Your task to perform on an android device: Go to calendar. Show me events next week Image 0: 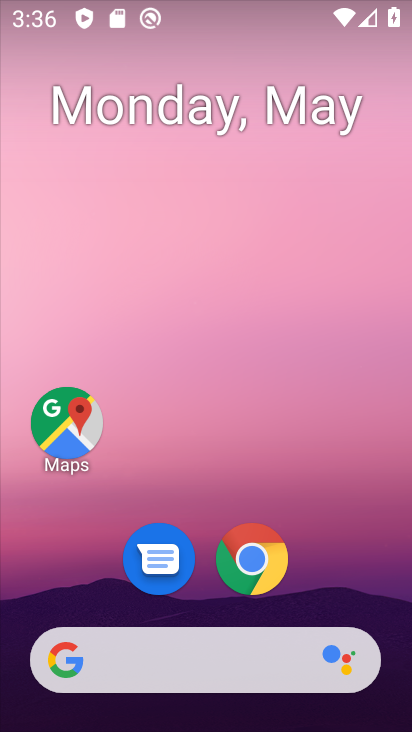
Step 0: click (231, 7)
Your task to perform on an android device: Go to calendar. Show me events next week Image 1: 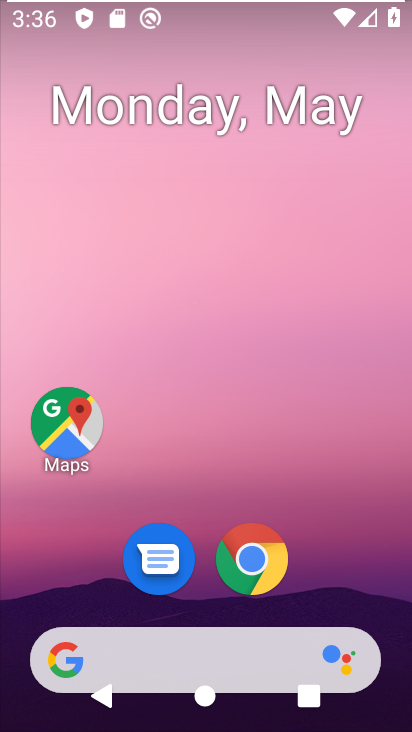
Step 1: drag from (293, 626) to (246, 189)
Your task to perform on an android device: Go to calendar. Show me events next week Image 2: 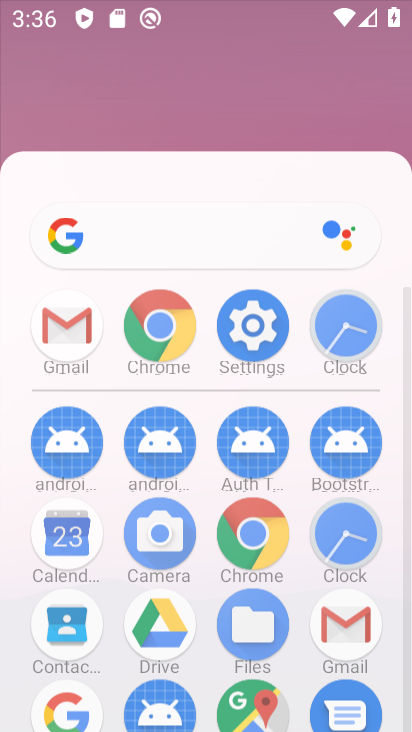
Step 2: drag from (232, 524) to (184, 46)
Your task to perform on an android device: Go to calendar. Show me events next week Image 3: 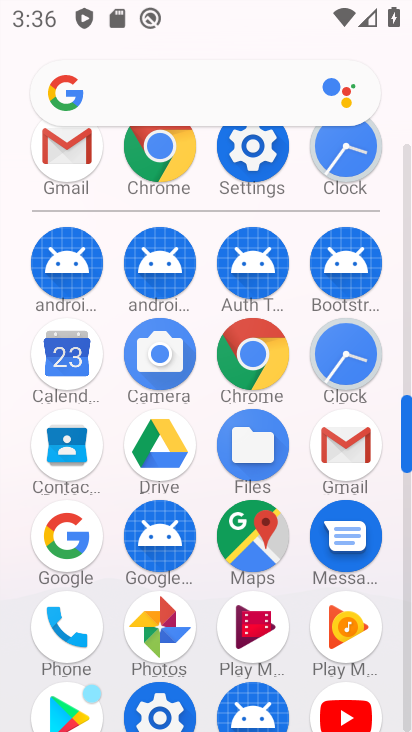
Step 3: click (71, 368)
Your task to perform on an android device: Go to calendar. Show me events next week Image 4: 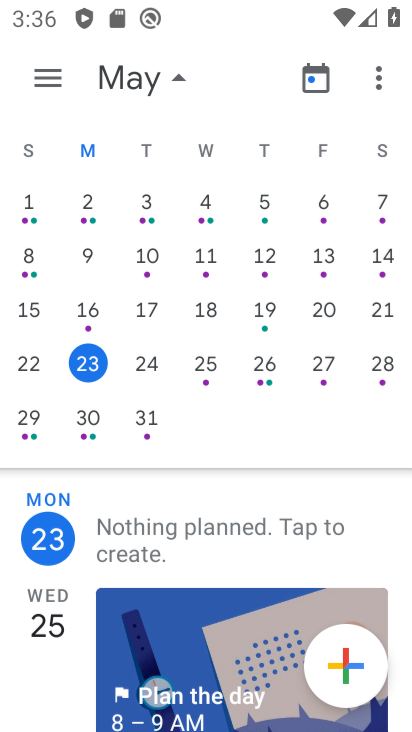
Step 4: click (73, 364)
Your task to perform on an android device: Go to calendar. Show me events next week Image 5: 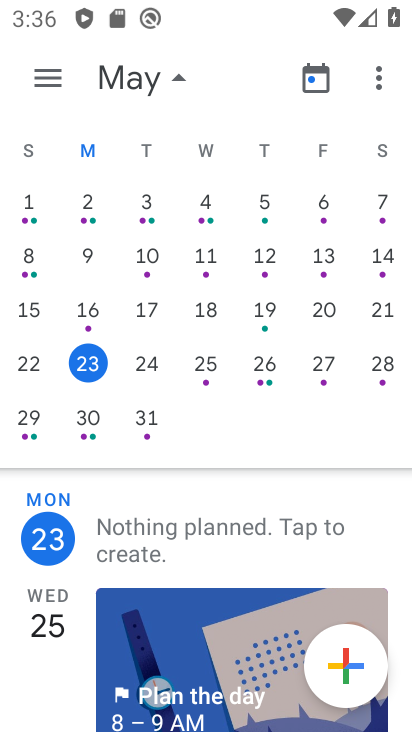
Step 5: drag from (167, 671) to (145, 190)
Your task to perform on an android device: Go to calendar. Show me events next week Image 6: 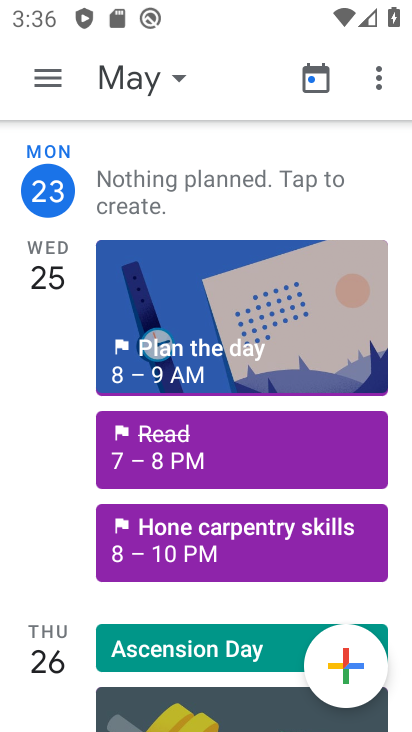
Step 6: drag from (176, 543) to (194, 145)
Your task to perform on an android device: Go to calendar. Show me events next week Image 7: 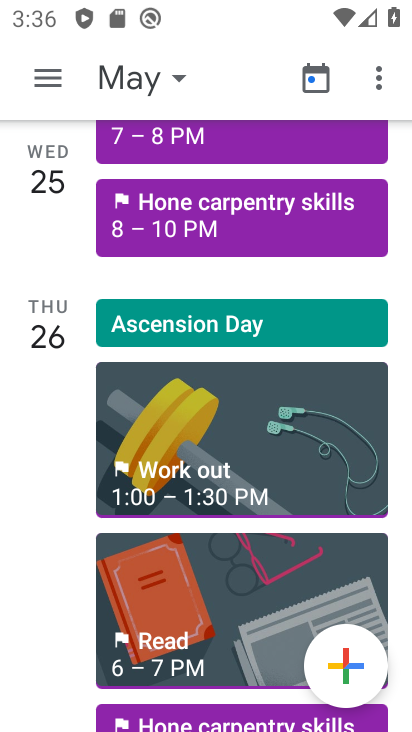
Step 7: drag from (178, 575) to (140, 207)
Your task to perform on an android device: Go to calendar. Show me events next week Image 8: 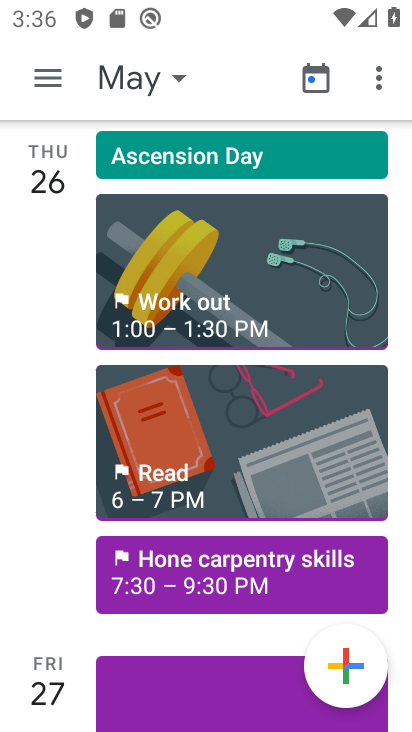
Step 8: drag from (198, 569) to (157, 203)
Your task to perform on an android device: Go to calendar. Show me events next week Image 9: 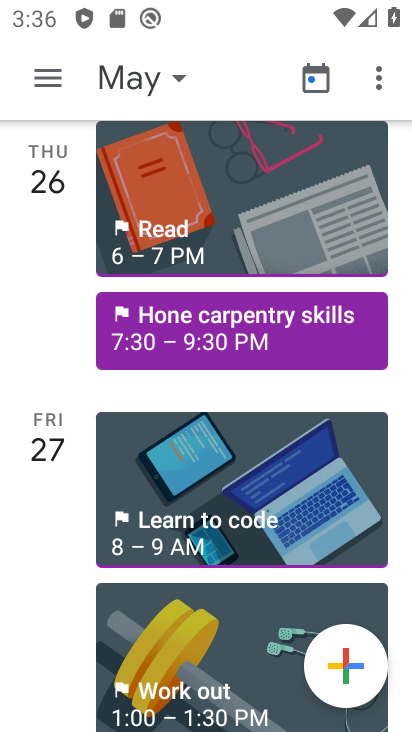
Step 9: drag from (195, 542) to (155, 168)
Your task to perform on an android device: Go to calendar. Show me events next week Image 10: 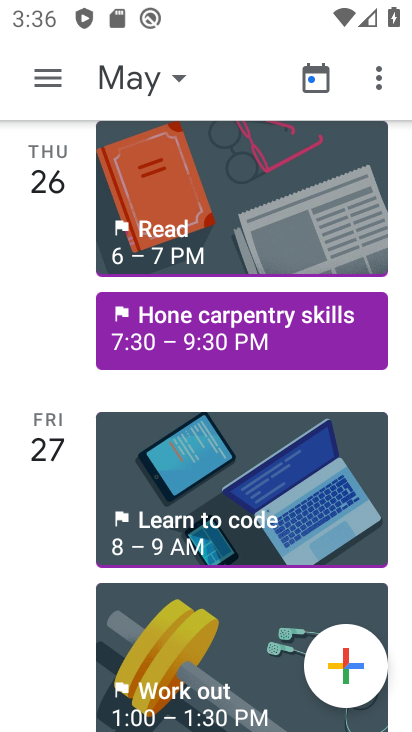
Step 10: drag from (232, 571) to (195, 155)
Your task to perform on an android device: Go to calendar. Show me events next week Image 11: 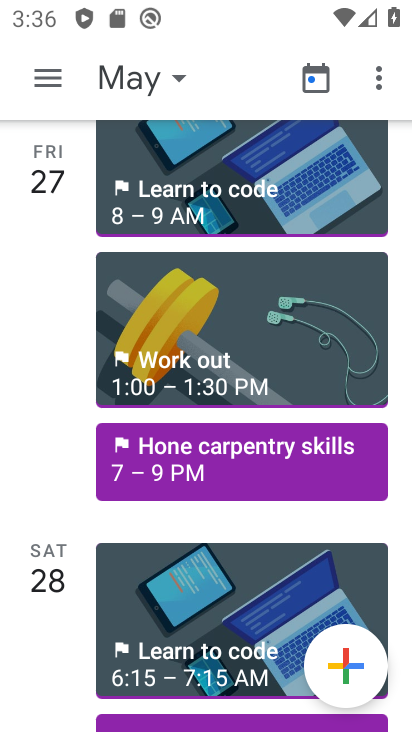
Step 11: drag from (205, 565) to (176, 181)
Your task to perform on an android device: Go to calendar. Show me events next week Image 12: 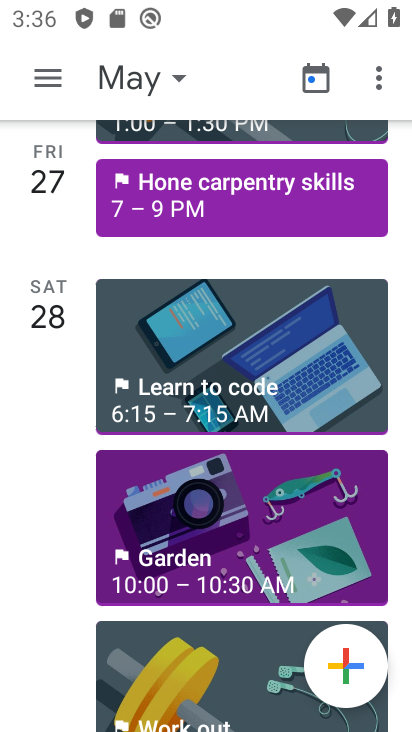
Step 12: drag from (177, 518) to (194, 195)
Your task to perform on an android device: Go to calendar. Show me events next week Image 13: 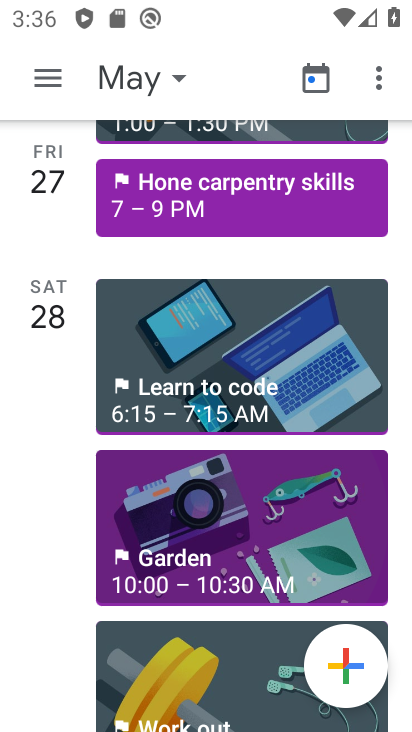
Step 13: drag from (208, 574) to (244, 97)
Your task to perform on an android device: Go to calendar. Show me events next week Image 14: 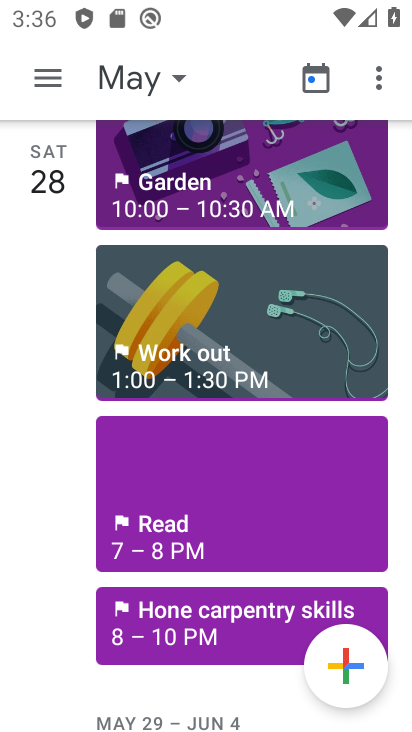
Step 14: drag from (221, 496) to (221, 123)
Your task to perform on an android device: Go to calendar. Show me events next week Image 15: 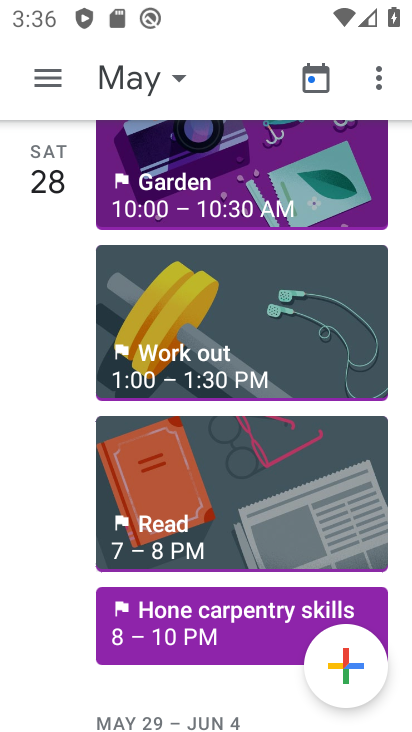
Step 15: drag from (152, 626) to (143, 174)
Your task to perform on an android device: Go to calendar. Show me events next week Image 16: 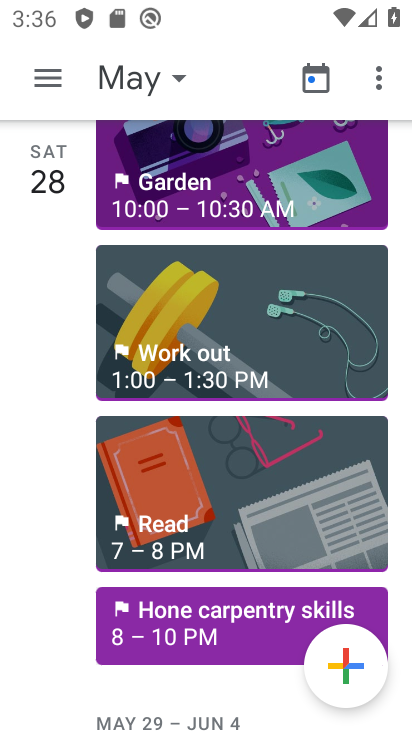
Step 16: drag from (163, 569) to (262, 114)
Your task to perform on an android device: Go to calendar. Show me events next week Image 17: 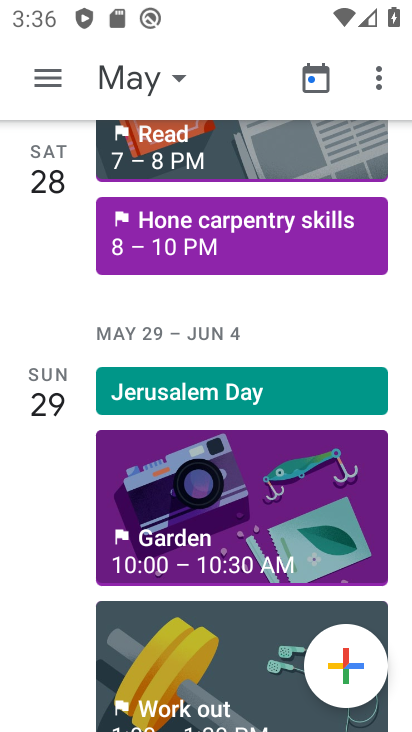
Step 17: drag from (241, 514) to (319, 108)
Your task to perform on an android device: Go to calendar. Show me events next week Image 18: 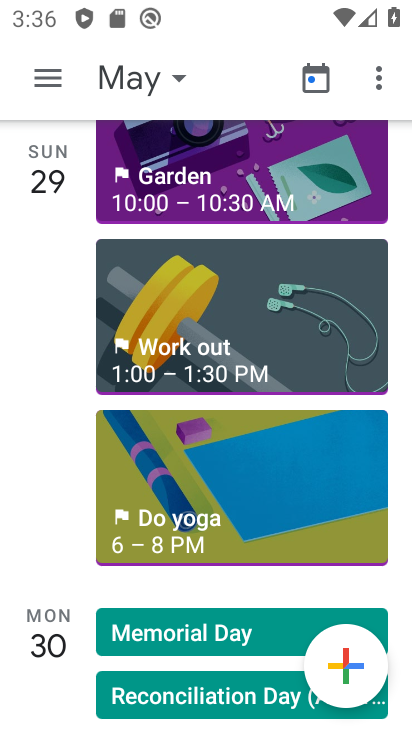
Step 18: click (136, 627)
Your task to perform on an android device: Go to calendar. Show me events next week Image 19: 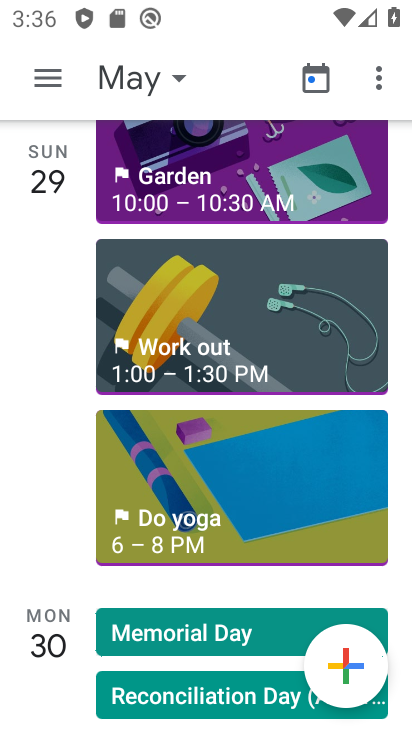
Step 19: click (140, 624)
Your task to perform on an android device: Go to calendar. Show me events next week Image 20: 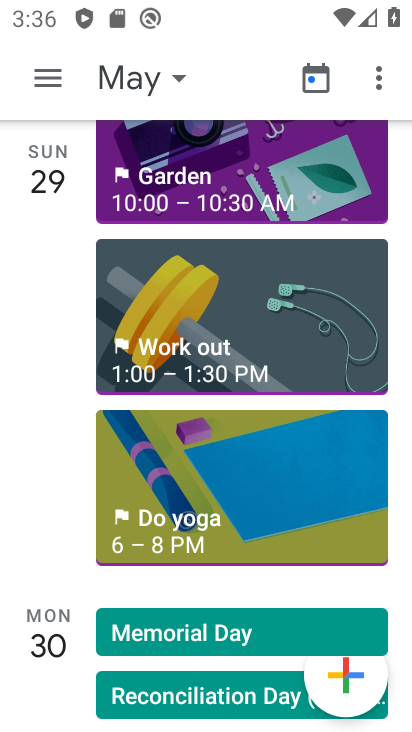
Step 20: click (140, 624)
Your task to perform on an android device: Go to calendar. Show me events next week Image 21: 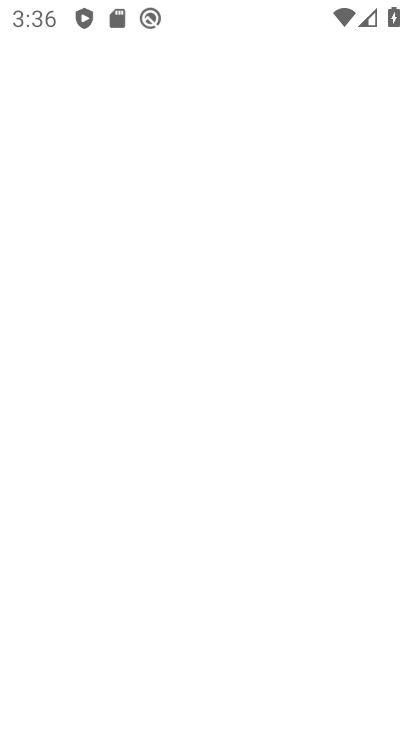
Step 21: click (148, 629)
Your task to perform on an android device: Go to calendar. Show me events next week Image 22: 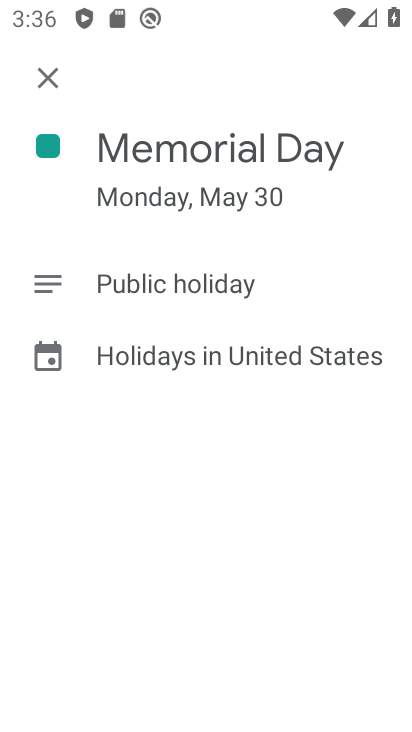
Step 22: click (155, 647)
Your task to perform on an android device: Go to calendar. Show me events next week Image 23: 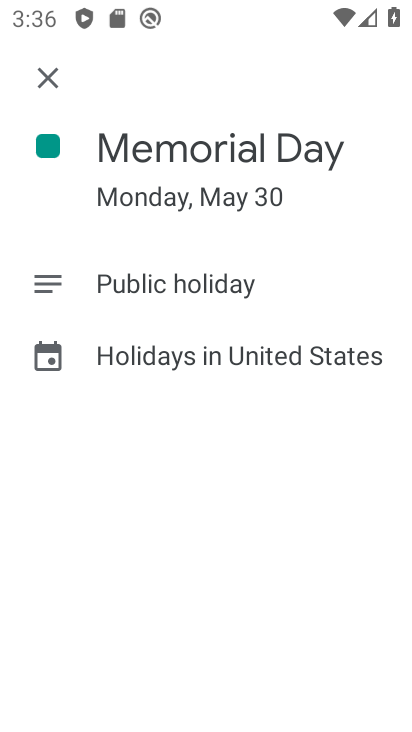
Step 23: click (159, 644)
Your task to perform on an android device: Go to calendar. Show me events next week Image 24: 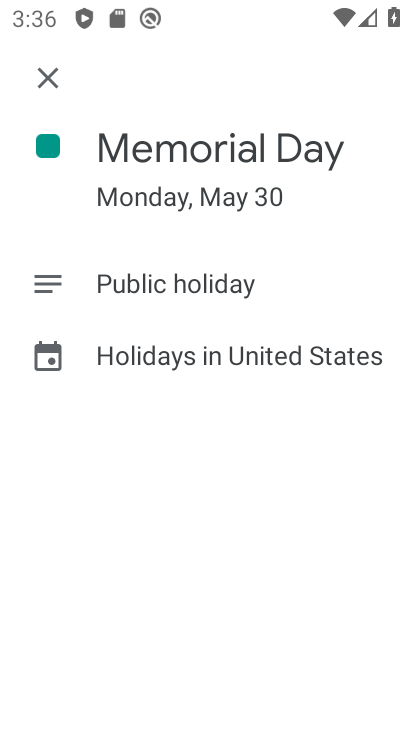
Step 24: task complete